Your task to perform on an android device: choose inbox layout in the gmail app Image 0: 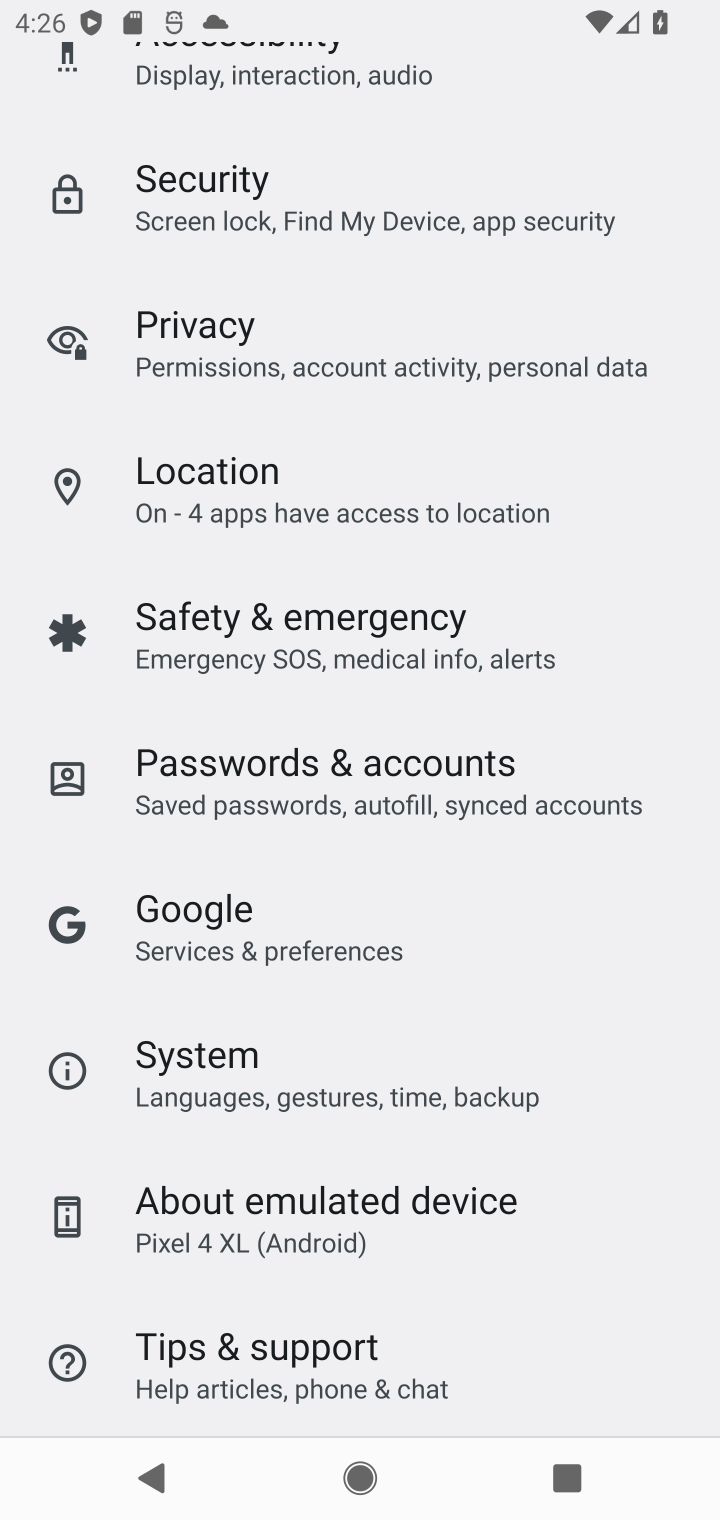
Step 0: press home button
Your task to perform on an android device: choose inbox layout in the gmail app Image 1: 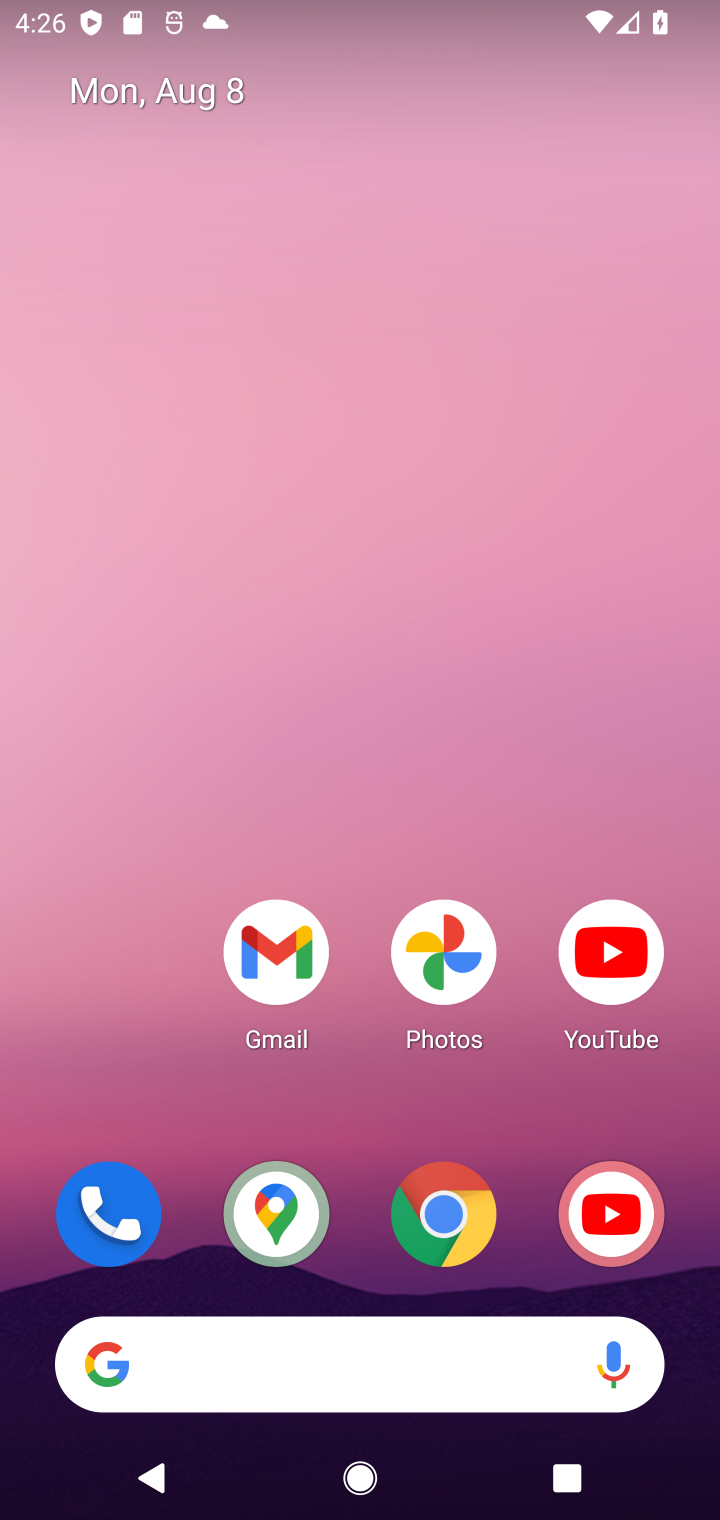
Step 1: drag from (371, 1283) to (344, 129)
Your task to perform on an android device: choose inbox layout in the gmail app Image 2: 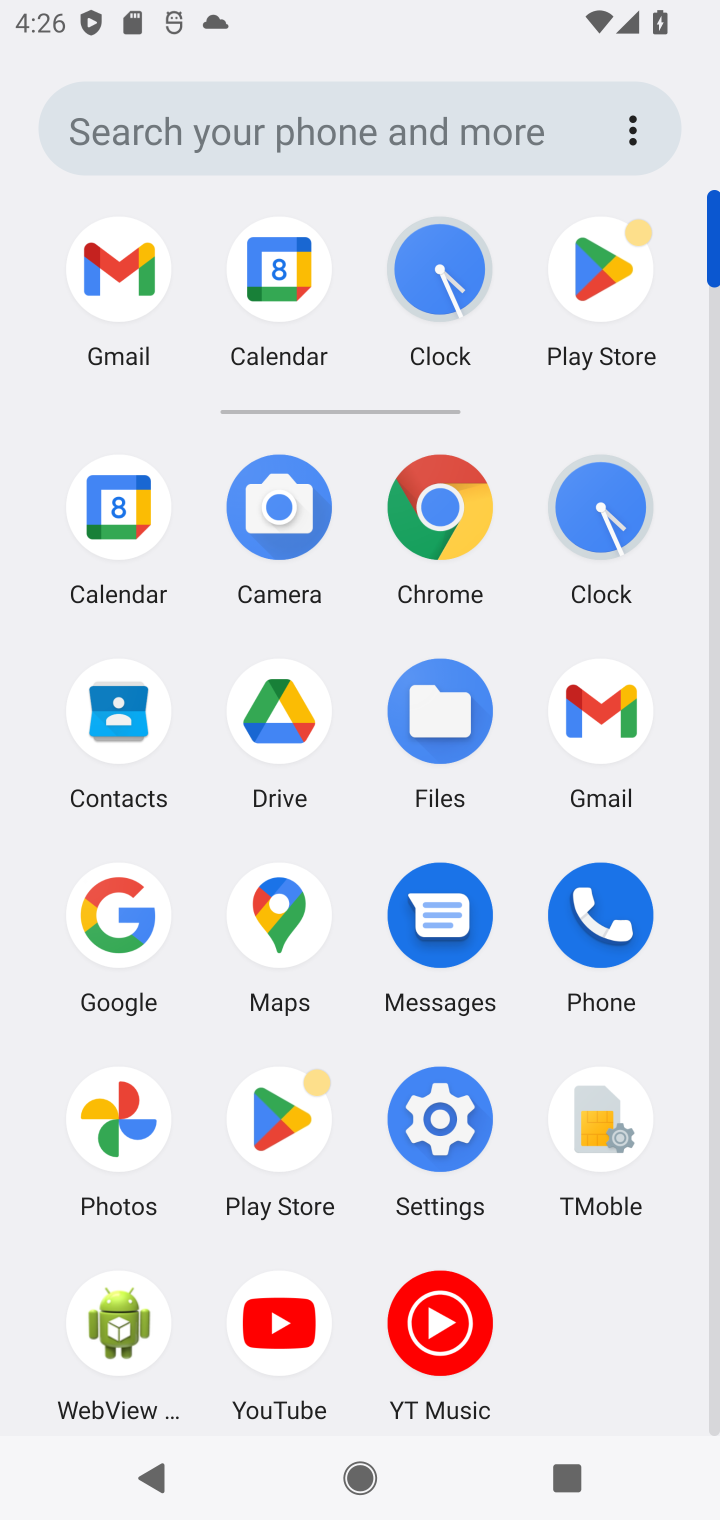
Step 2: click (118, 269)
Your task to perform on an android device: choose inbox layout in the gmail app Image 3: 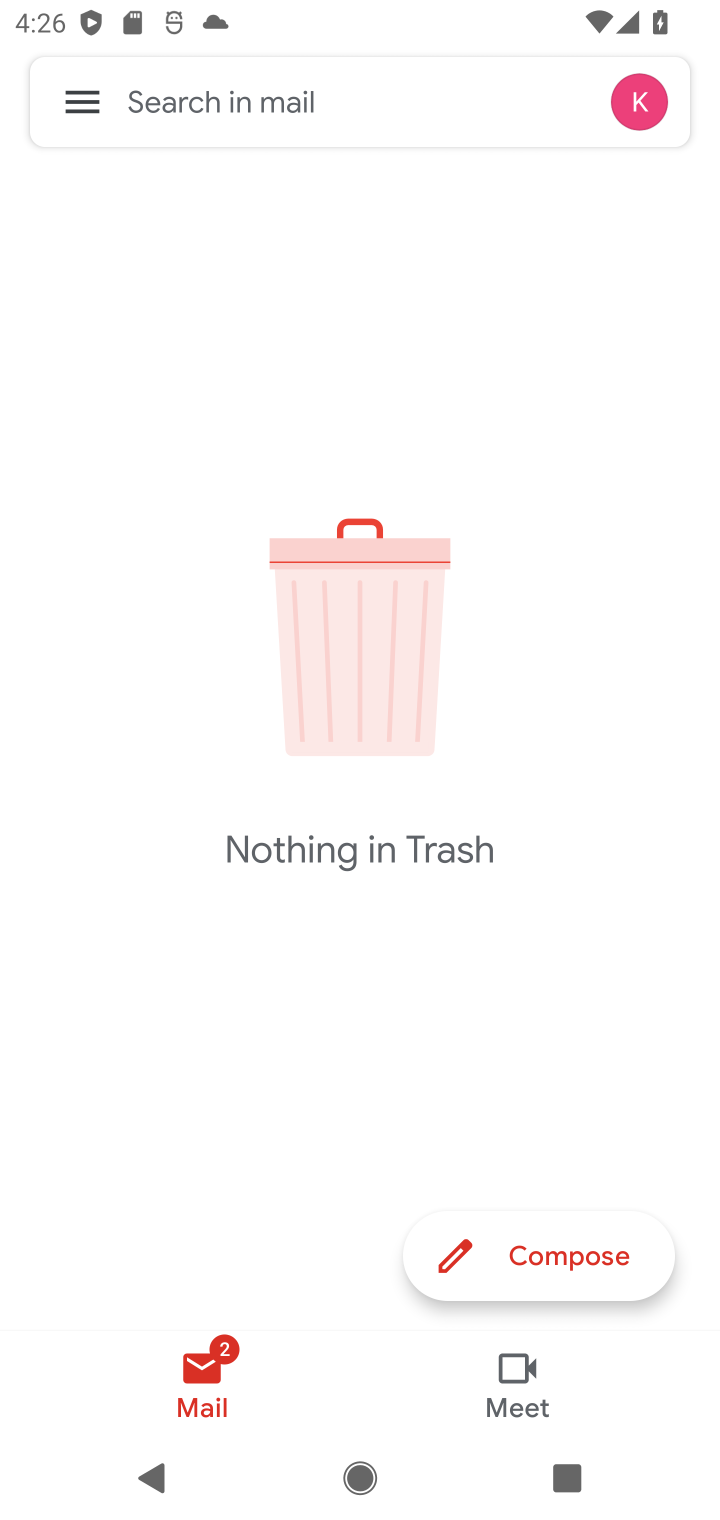
Step 3: click (78, 111)
Your task to perform on an android device: choose inbox layout in the gmail app Image 4: 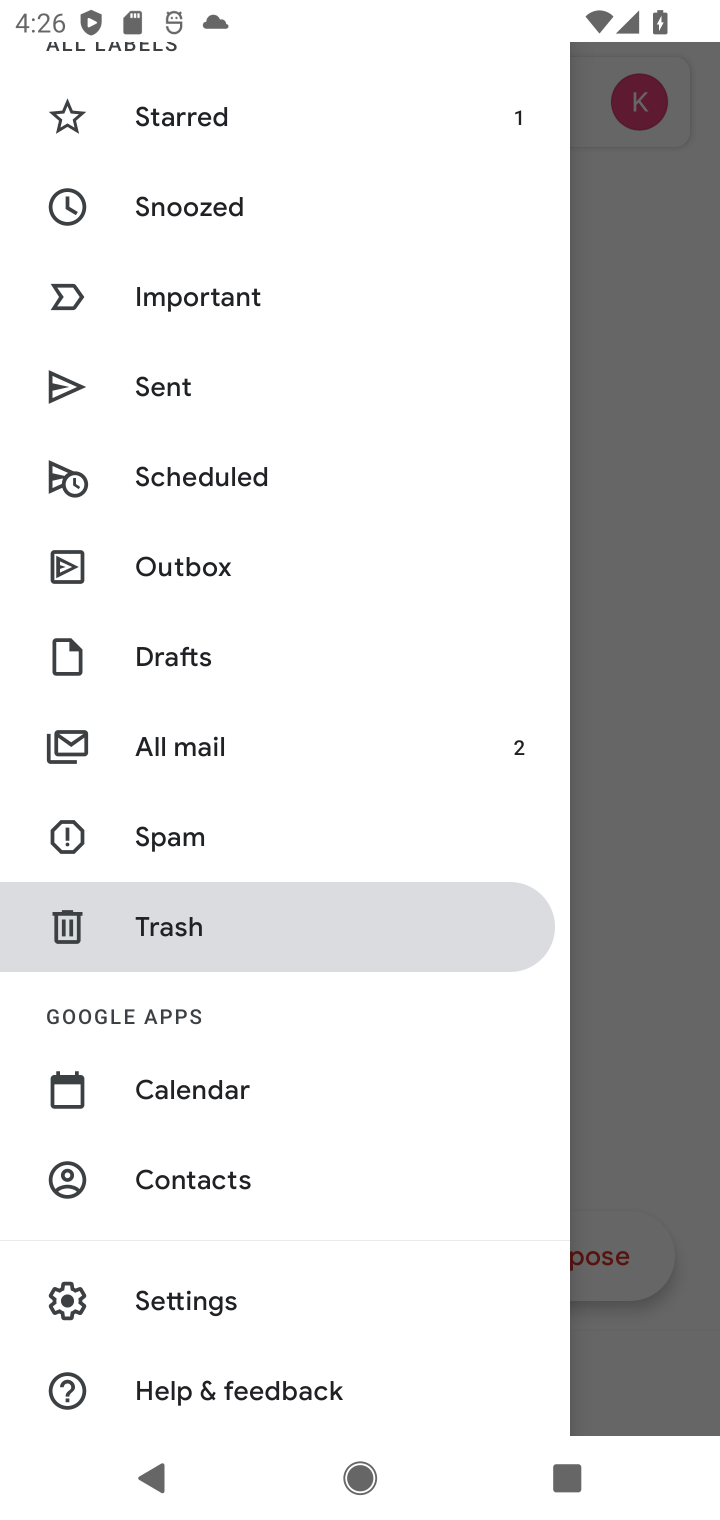
Step 4: click (203, 1294)
Your task to perform on an android device: choose inbox layout in the gmail app Image 5: 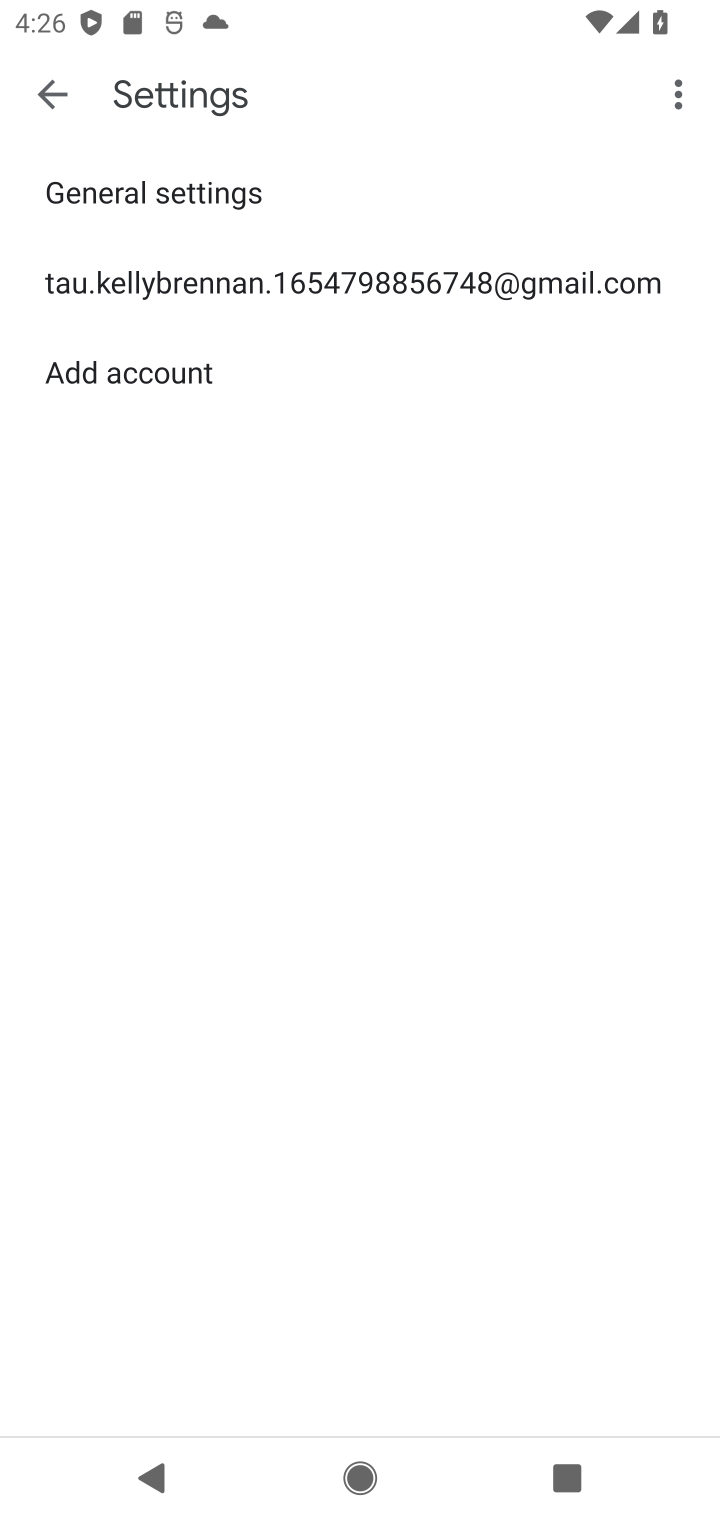
Step 5: click (397, 284)
Your task to perform on an android device: choose inbox layout in the gmail app Image 6: 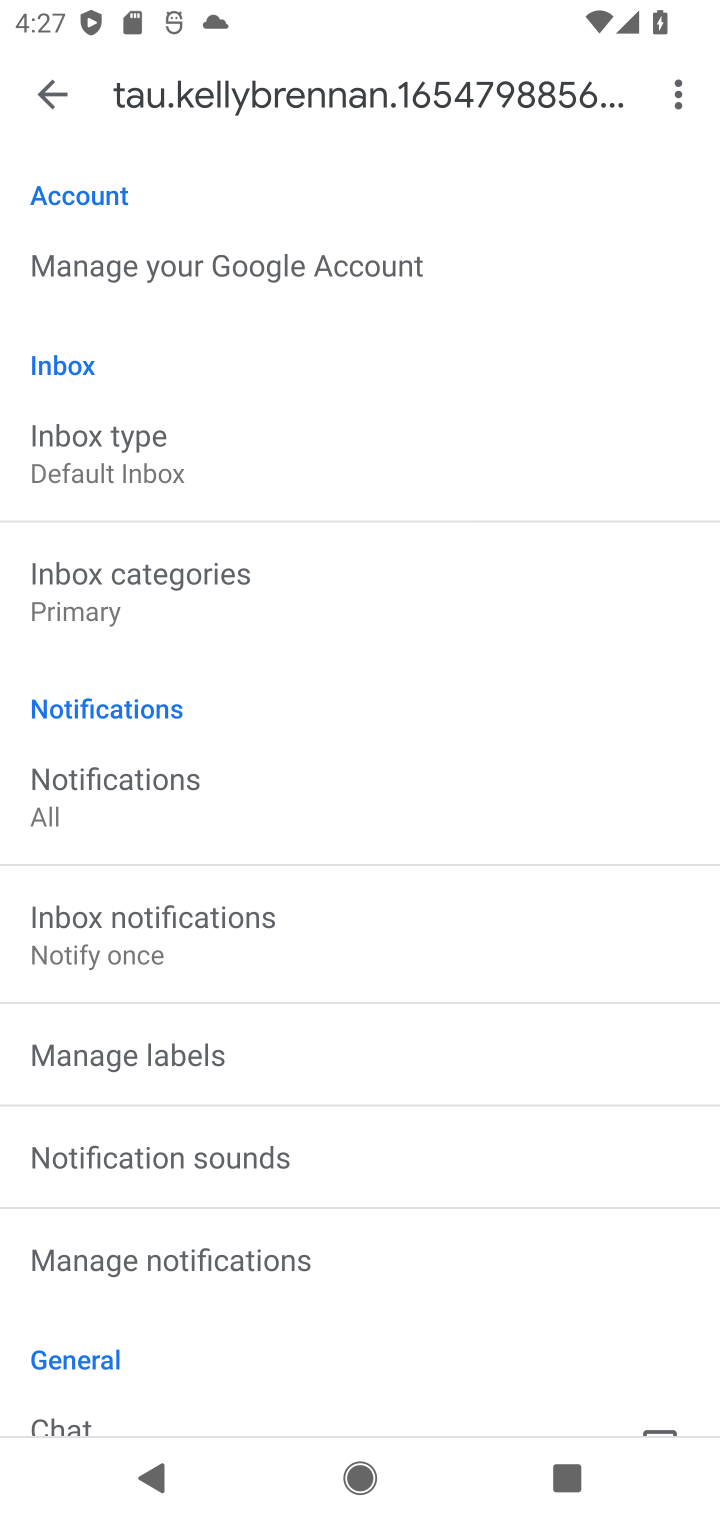
Step 6: click (93, 454)
Your task to perform on an android device: choose inbox layout in the gmail app Image 7: 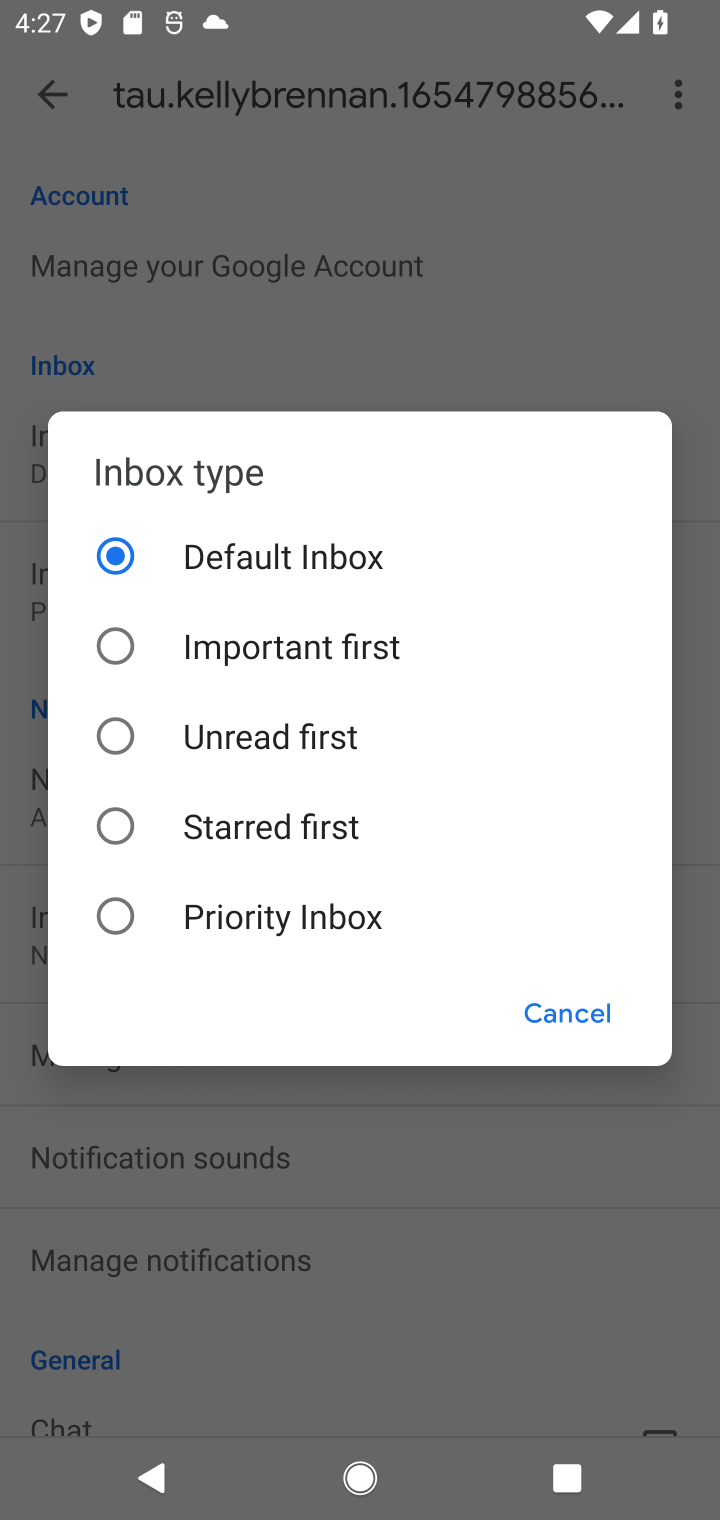
Step 7: click (112, 828)
Your task to perform on an android device: choose inbox layout in the gmail app Image 8: 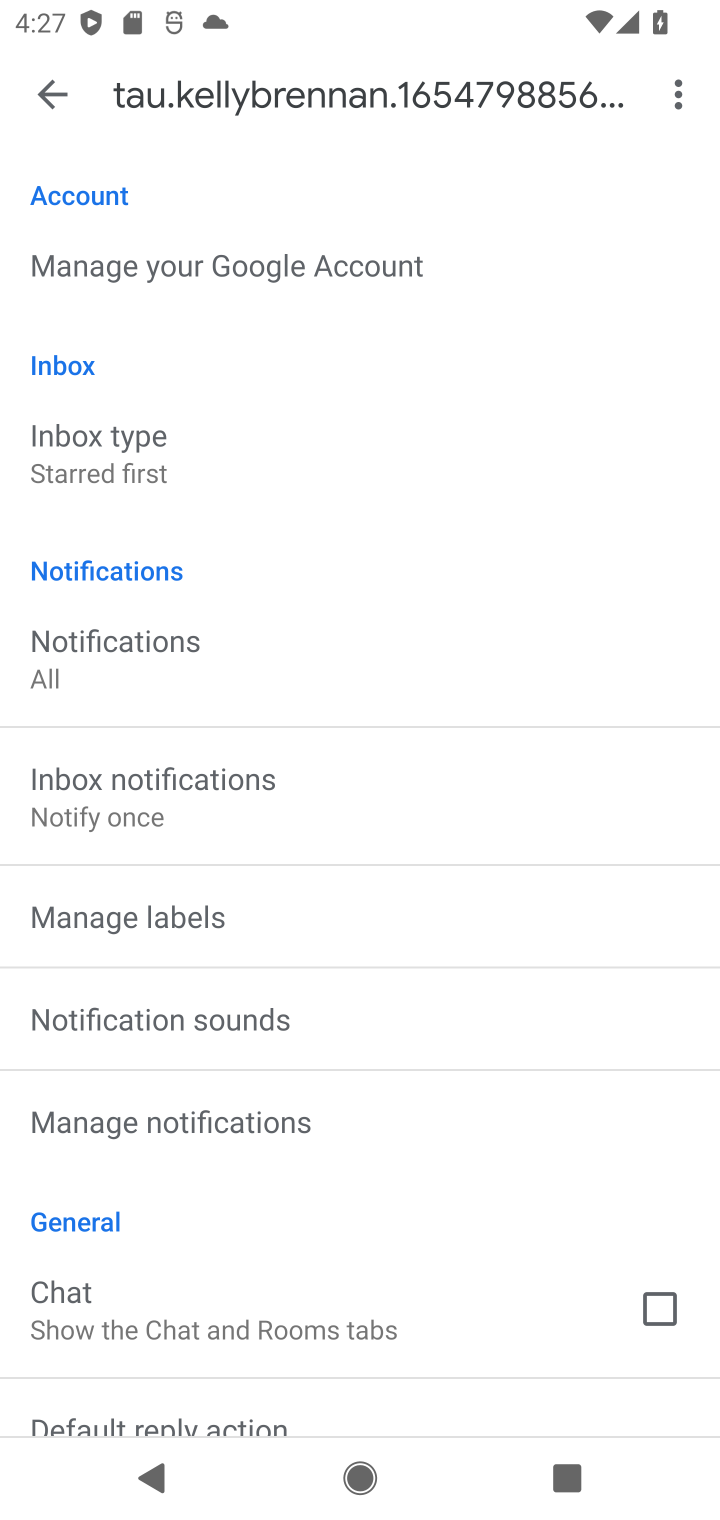
Step 8: task complete